Your task to perform on an android device: Open CNN.com Image 0: 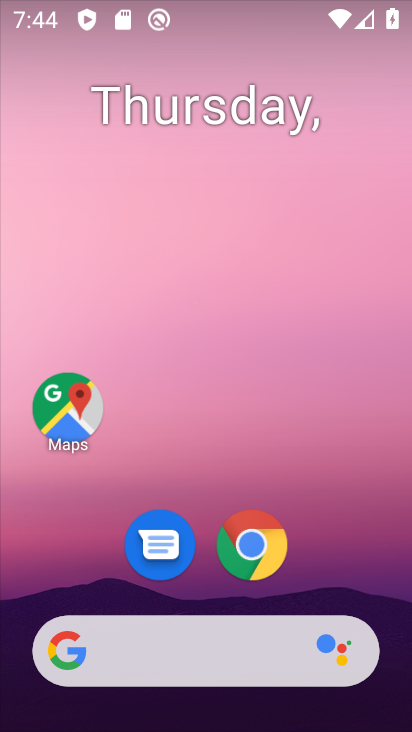
Step 0: drag from (177, 617) to (279, 179)
Your task to perform on an android device: Open CNN.com Image 1: 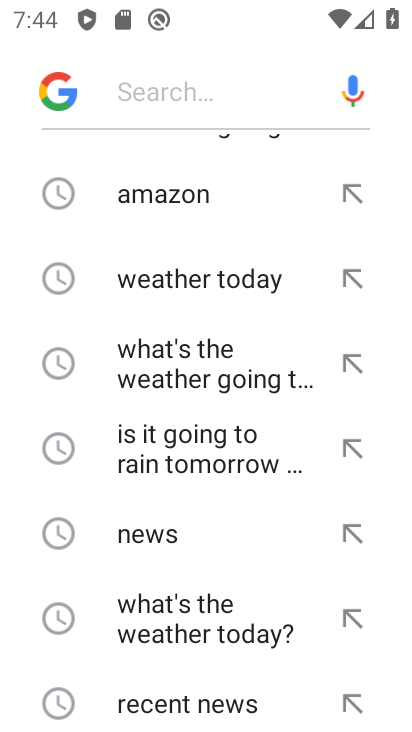
Step 1: drag from (243, 229) to (275, 679)
Your task to perform on an android device: Open CNN.com Image 2: 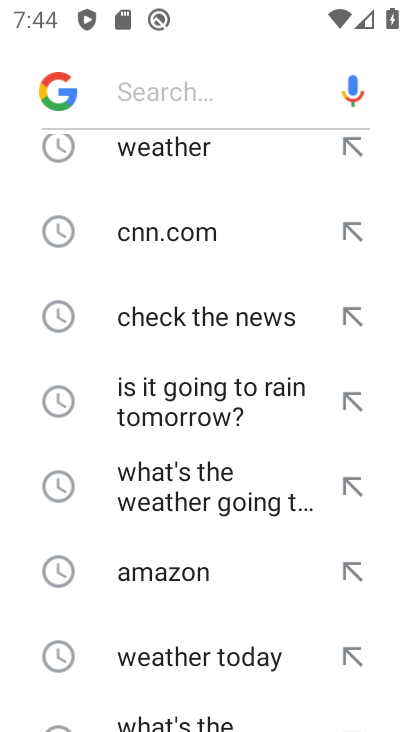
Step 2: click (162, 234)
Your task to perform on an android device: Open CNN.com Image 3: 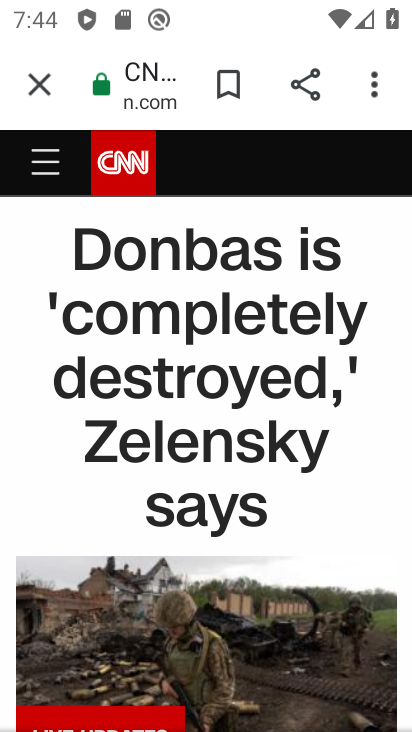
Step 3: task complete